Your task to perform on an android device: Toggle the flashlight Image 0: 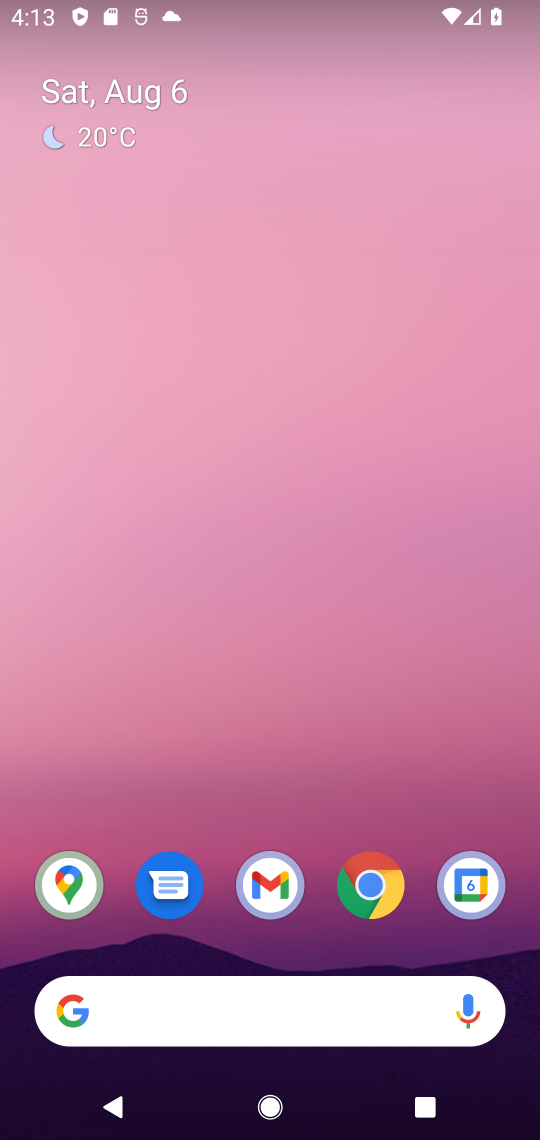
Step 0: drag from (410, 826) to (260, 83)
Your task to perform on an android device: Toggle the flashlight Image 1: 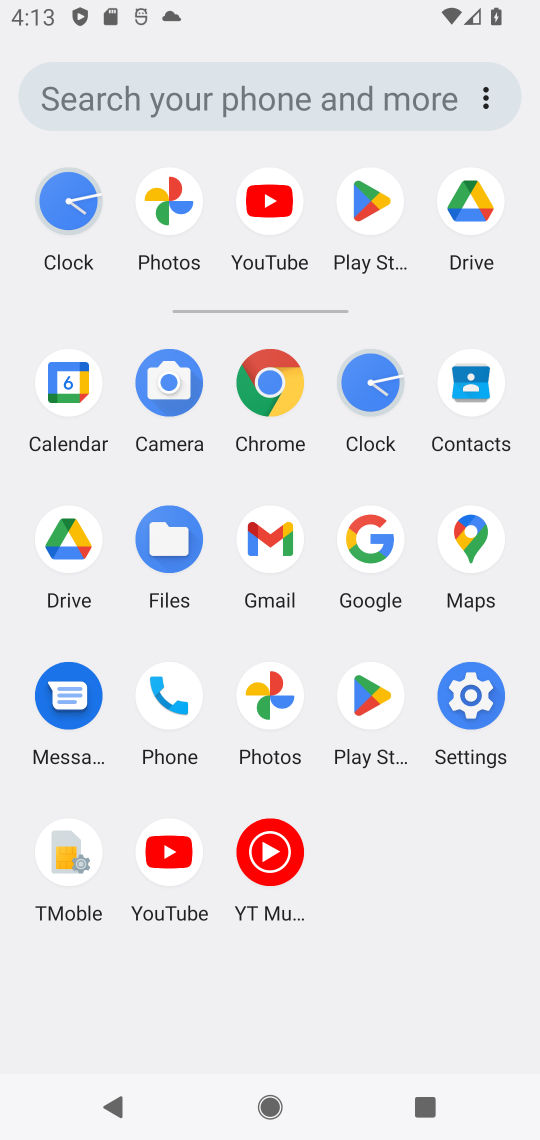
Step 1: drag from (242, 14) to (408, 806)
Your task to perform on an android device: Toggle the flashlight Image 2: 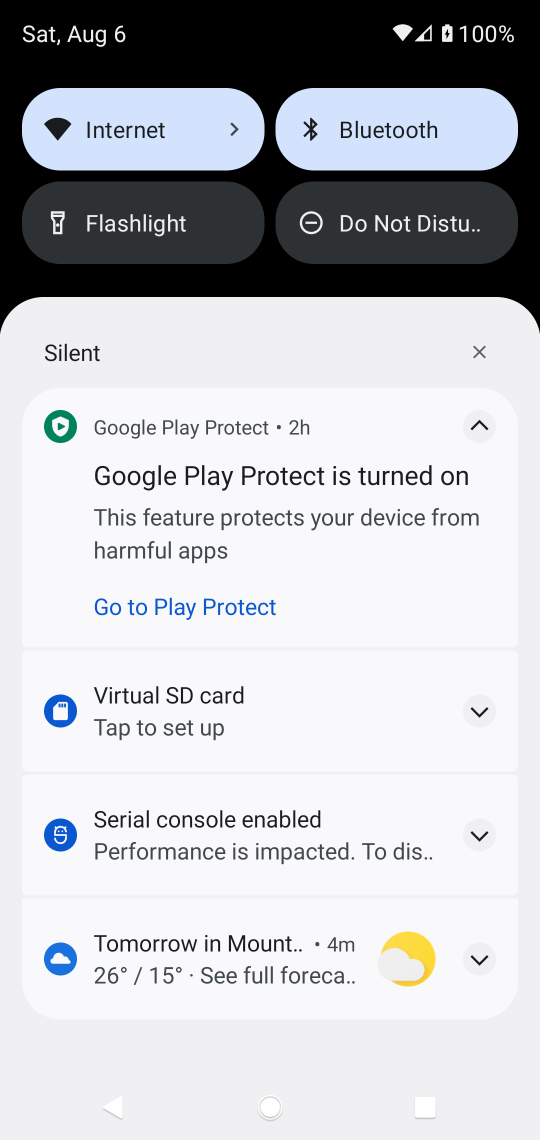
Step 2: click (128, 235)
Your task to perform on an android device: Toggle the flashlight Image 3: 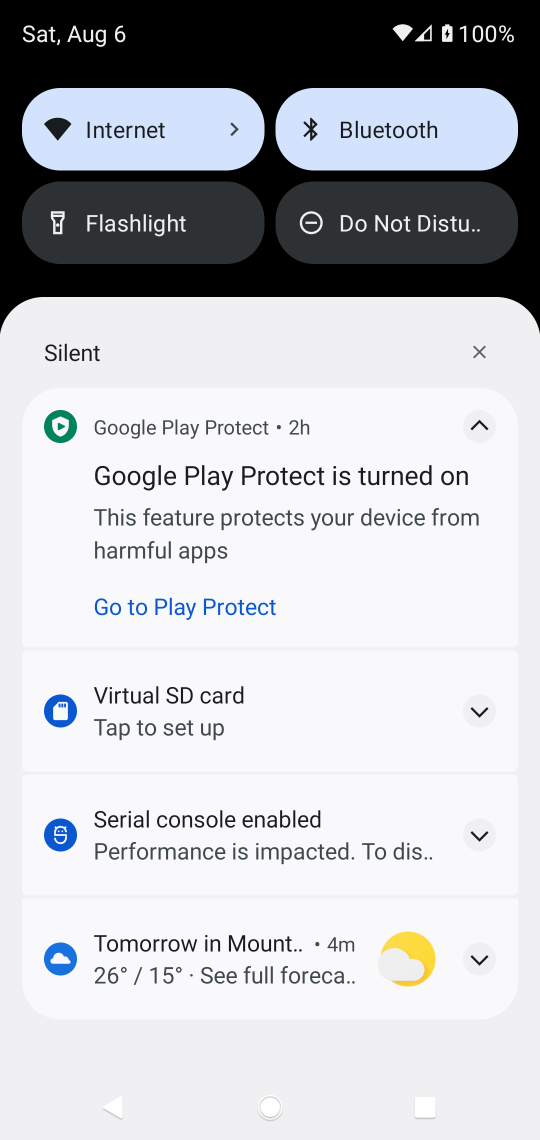
Step 3: task complete